Your task to perform on an android device: check google app version Image 0: 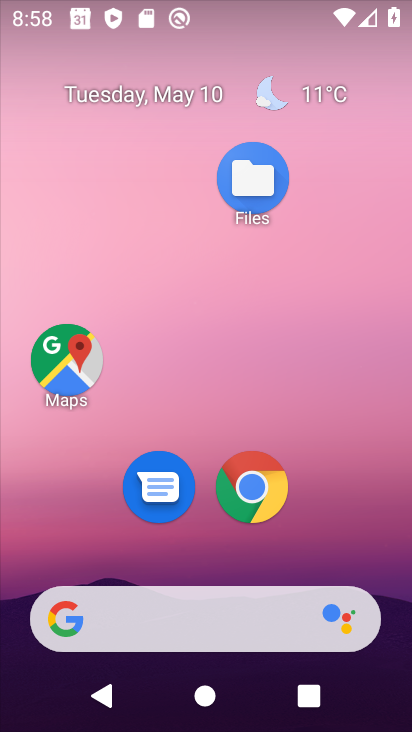
Step 0: drag from (217, 549) to (301, 19)
Your task to perform on an android device: check google app version Image 1: 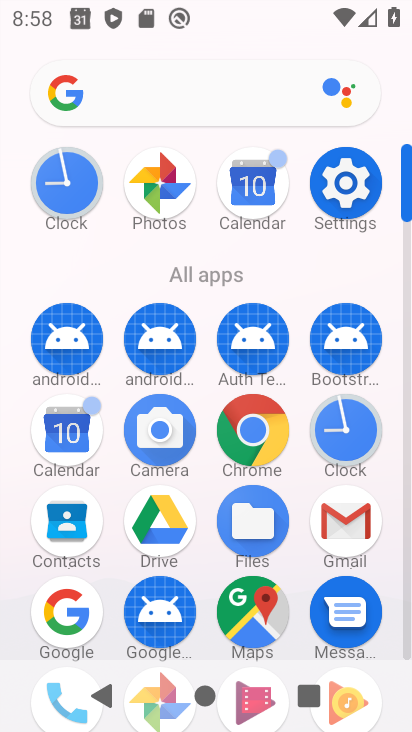
Step 1: click (70, 611)
Your task to perform on an android device: check google app version Image 2: 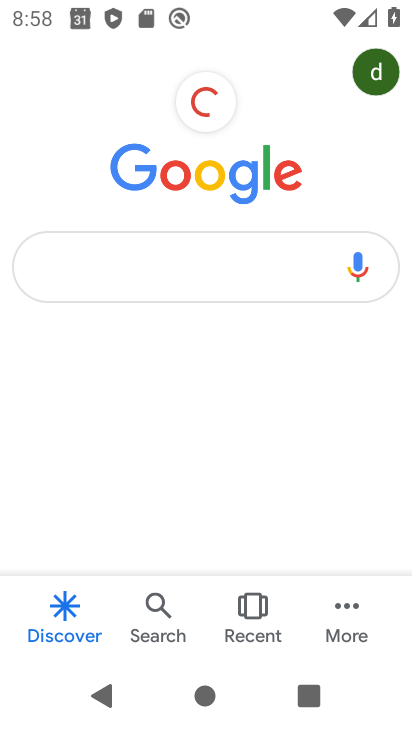
Step 2: click (349, 612)
Your task to perform on an android device: check google app version Image 3: 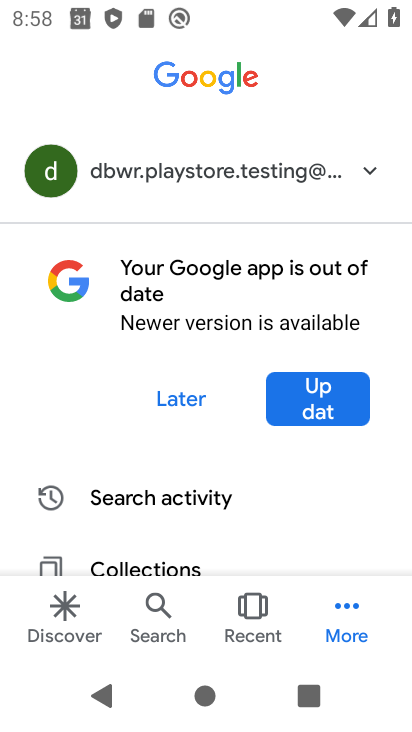
Step 3: click (349, 617)
Your task to perform on an android device: check google app version Image 4: 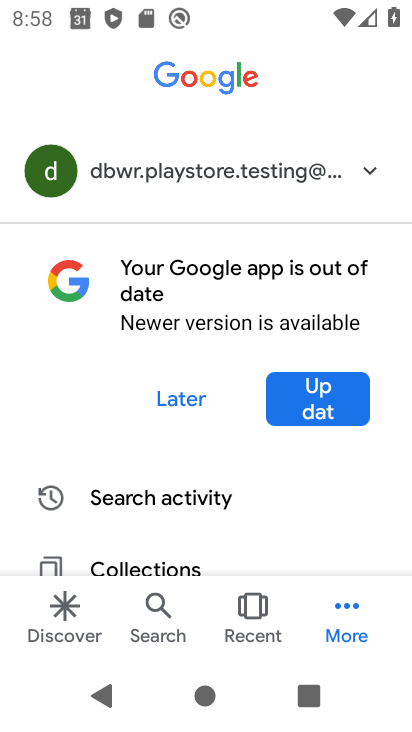
Step 4: click (364, 627)
Your task to perform on an android device: check google app version Image 5: 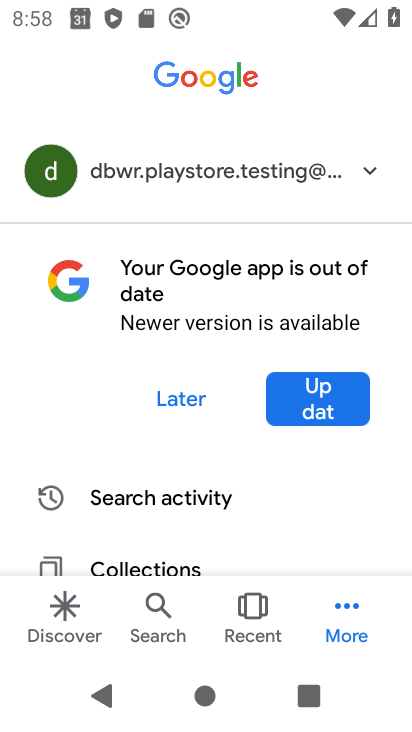
Step 5: click (354, 628)
Your task to perform on an android device: check google app version Image 6: 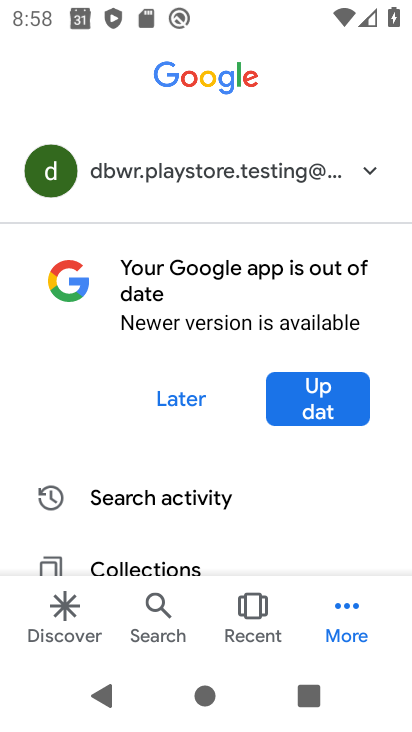
Step 6: drag from (194, 513) to (172, 245)
Your task to perform on an android device: check google app version Image 7: 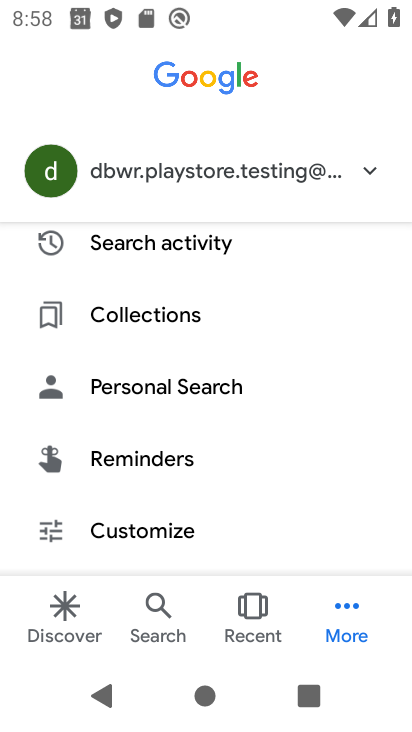
Step 7: drag from (206, 527) to (222, 279)
Your task to perform on an android device: check google app version Image 8: 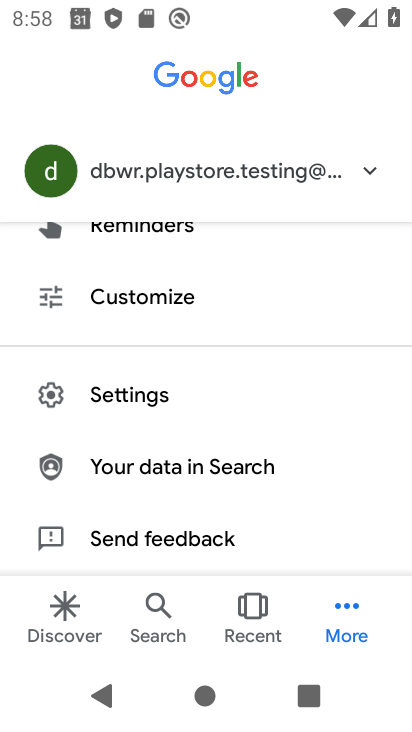
Step 8: click (131, 388)
Your task to perform on an android device: check google app version Image 9: 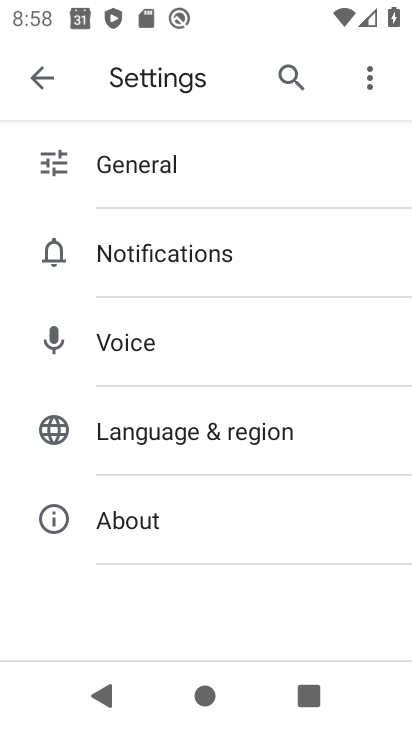
Step 9: click (148, 519)
Your task to perform on an android device: check google app version Image 10: 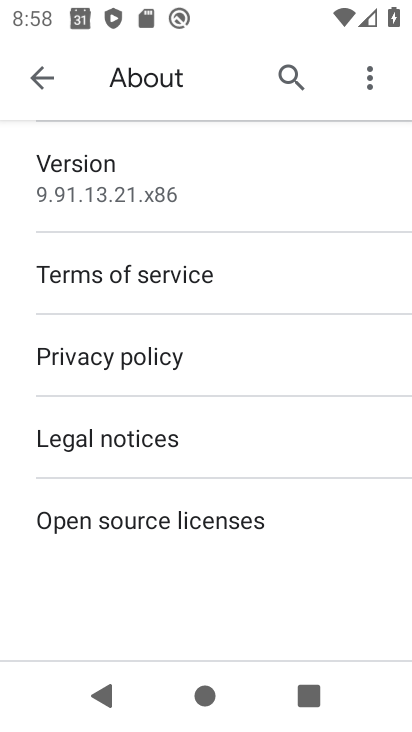
Step 10: task complete